Your task to perform on an android device: set default search engine in the chrome app Image 0: 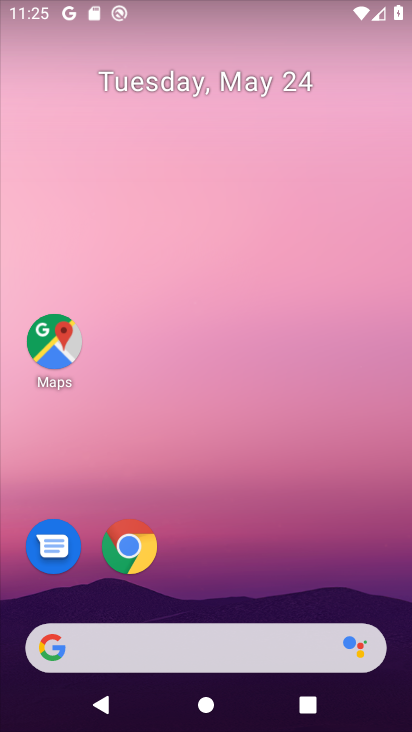
Step 0: drag from (200, 595) to (280, 14)
Your task to perform on an android device: set default search engine in the chrome app Image 1: 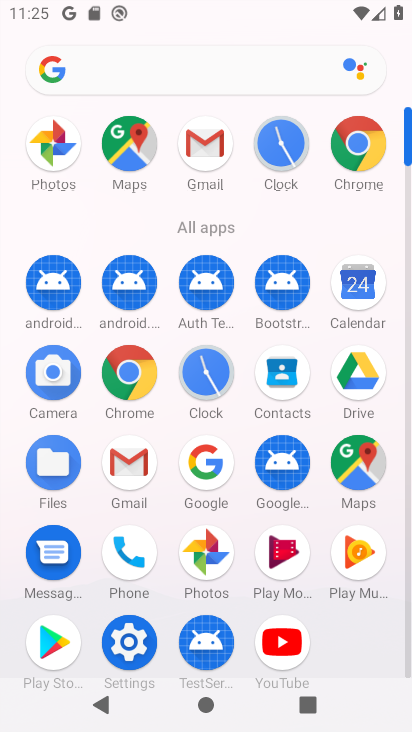
Step 1: click (143, 388)
Your task to perform on an android device: set default search engine in the chrome app Image 2: 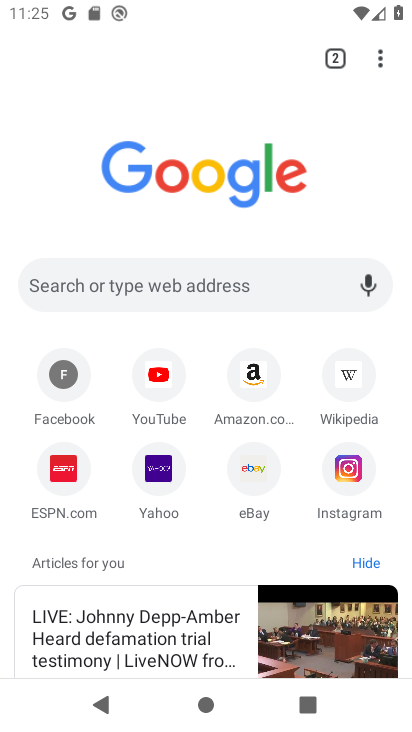
Step 2: click (377, 54)
Your task to perform on an android device: set default search engine in the chrome app Image 3: 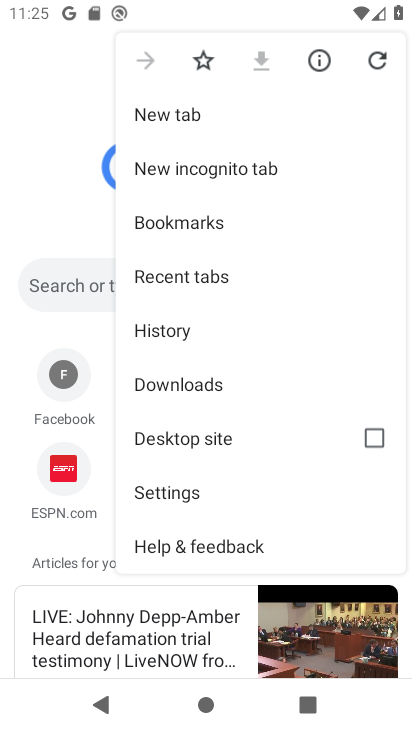
Step 3: click (178, 502)
Your task to perform on an android device: set default search engine in the chrome app Image 4: 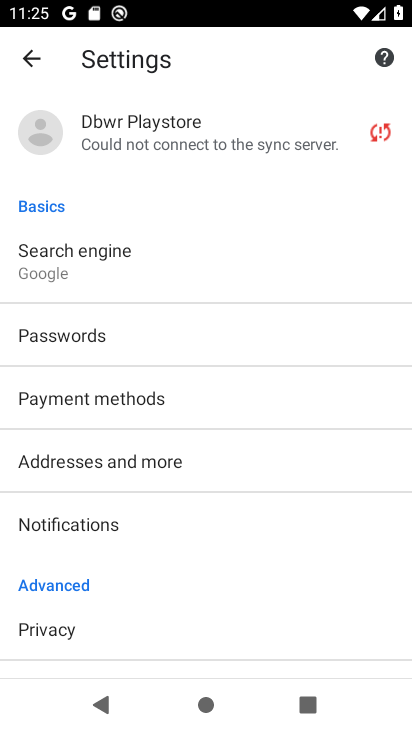
Step 4: click (105, 259)
Your task to perform on an android device: set default search engine in the chrome app Image 5: 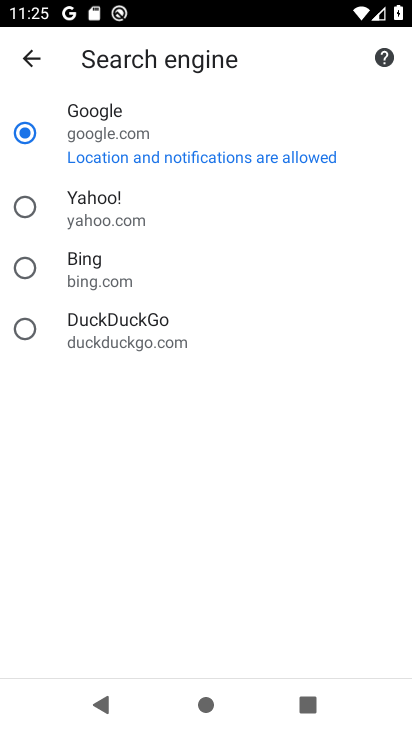
Step 5: click (130, 148)
Your task to perform on an android device: set default search engine in the chrome app Image 6: 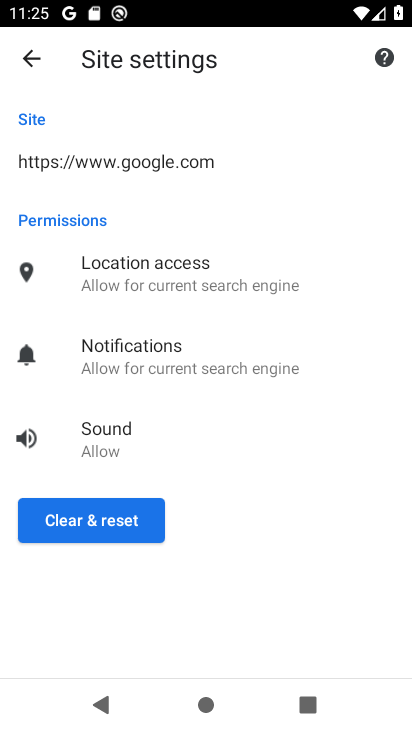
Step 6: click (122, 517)
Your task to perform on an android device: set default search engine in the chrome app Image 7: 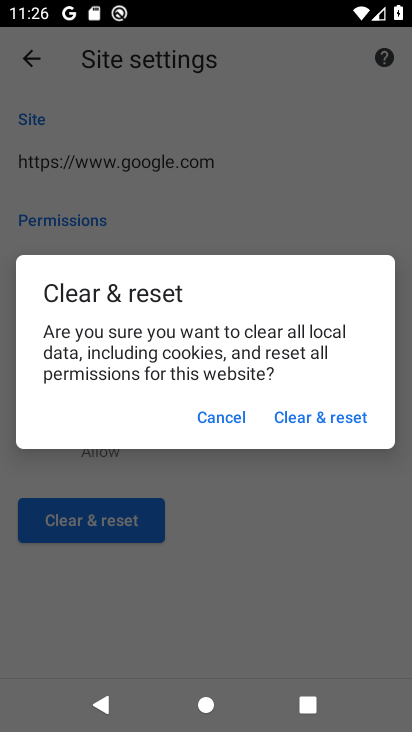
Step 7: click (347, 417)
Your task to perform on an android device: set default search engine in the chrome app Image 8: 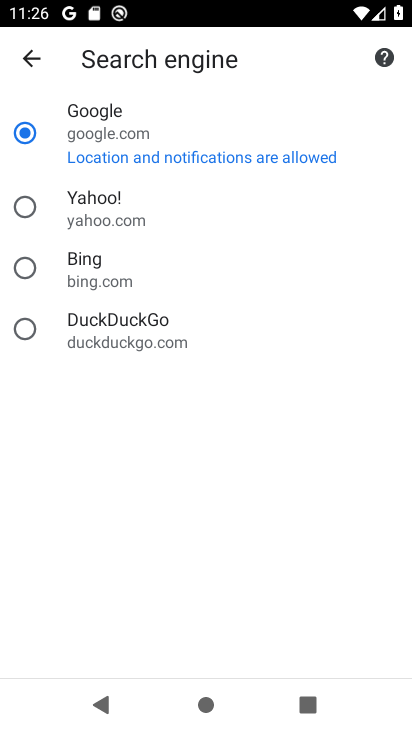
Step 8: task complete